Your task to perform on an android device: Turn off the flashlight Image 0: 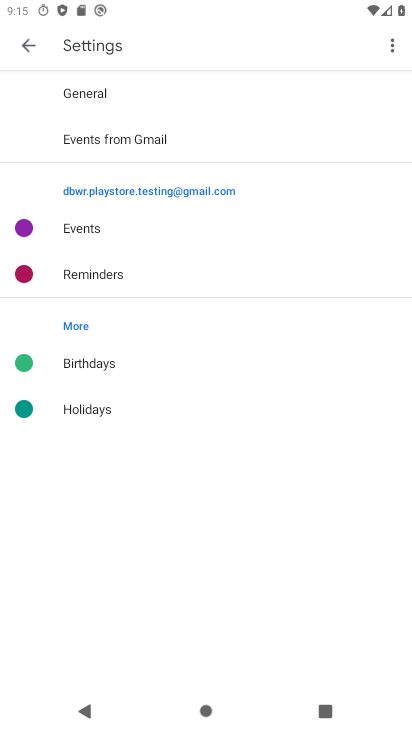
Step 0: press home button
Your task to perform on an android device: Turn off the flashlight Image 1: 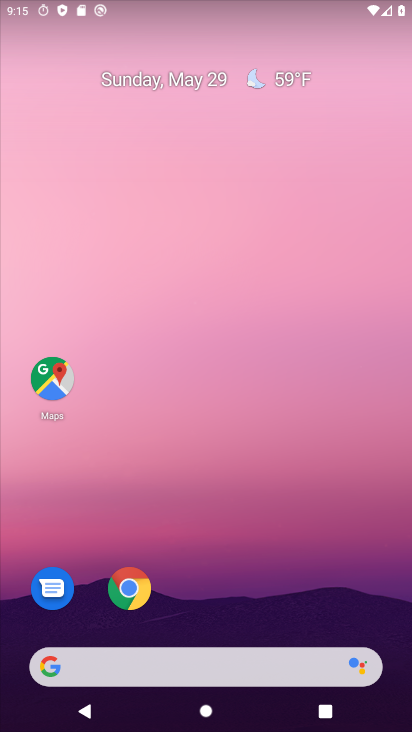
Step 1: drag from (162, 629) to (233, 1)
Your task to perform on an android device: Turn off the flashlight Image 2: 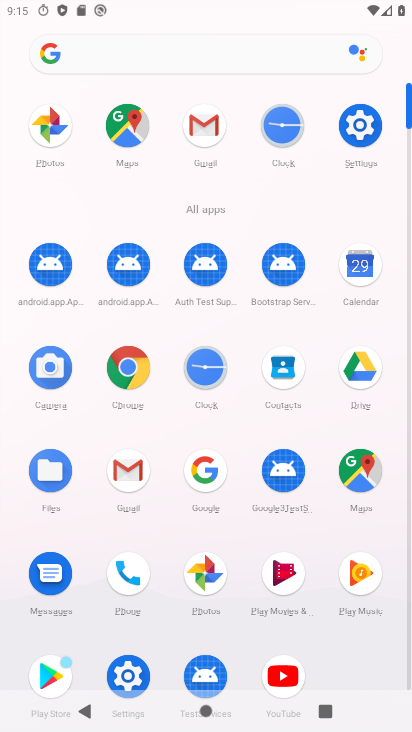
Step 2: click (355, 142)
Your task to perform on an android device: Turn off the flashlight Image 3: 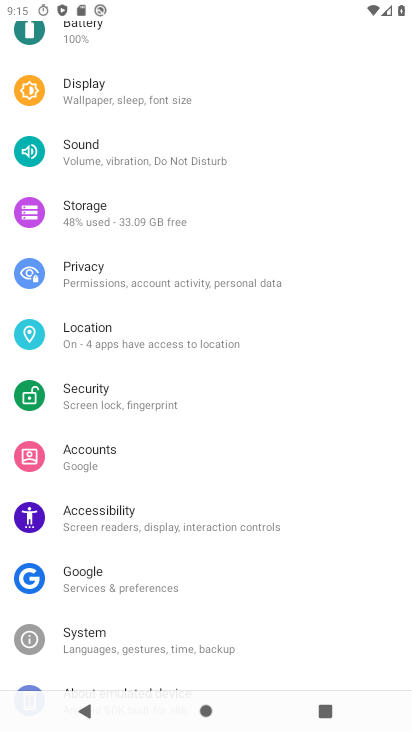
Step 3: drag from (240, 120) to (215, 471)
Your task to perform on an android device: Turn off the flashlight Image 4: 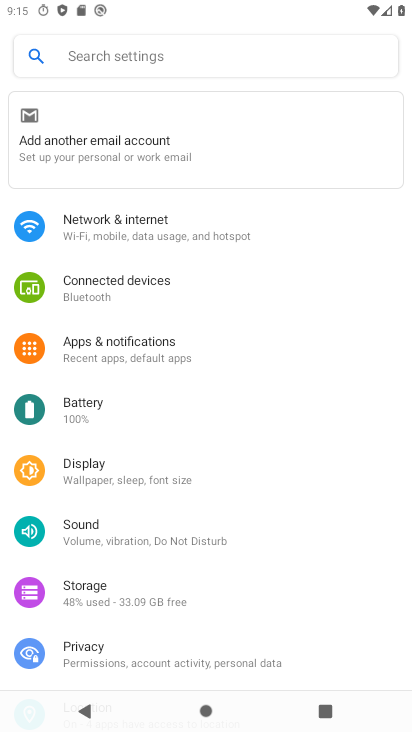
Step 4: click (166, 57)
Your task to perform on an android device: Turn off the flashlight Image 5: 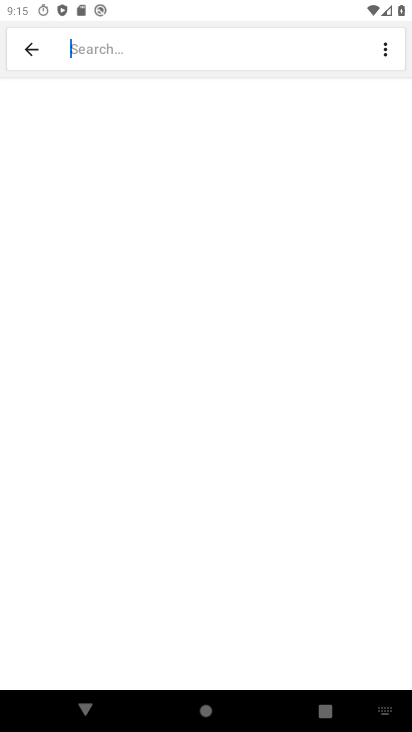
Step 5: type "flashlight"
Your task to perform on an android device: Turn off the flashlight Image 6: 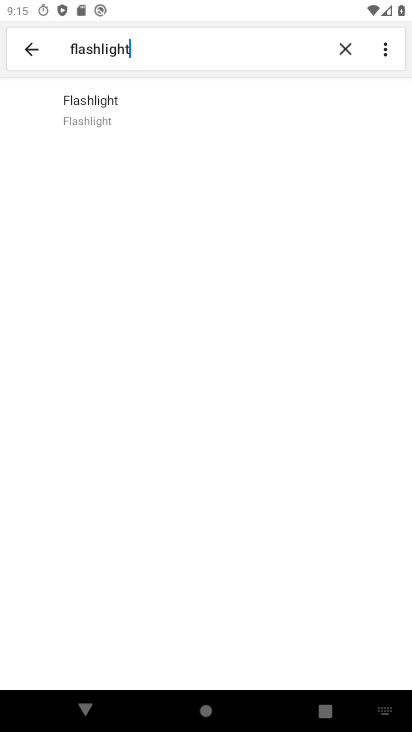
Step 6: click (110, 101)
Your task to perform on an android device: Turn off the flashlight Image 7: 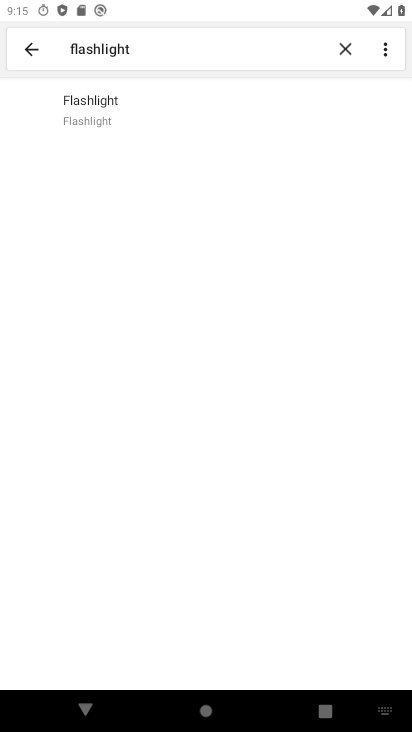
Step 7: click (110, 100)
Your task to perform on an android device: Turn off the flashlight Image 8: 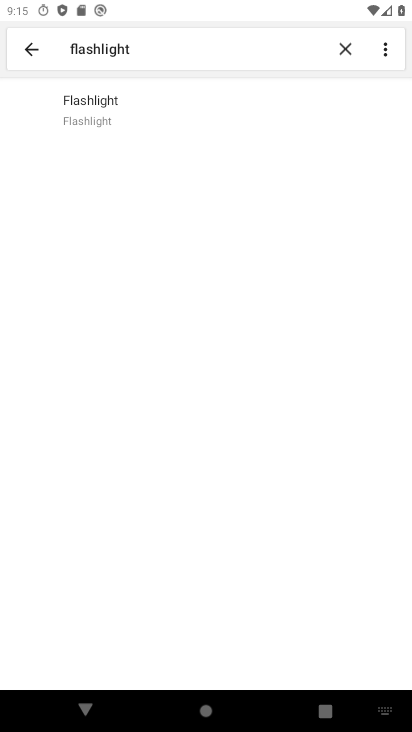
Step 8: task complete